Your task to perform on an android device: turn on the 24-hour format for clock Image 0: 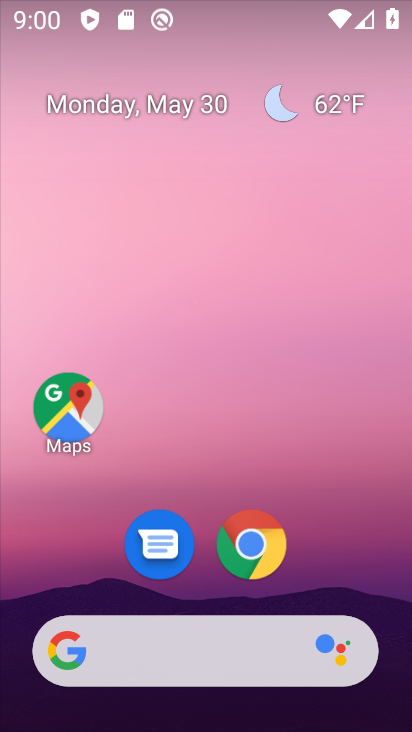
Step 0: drag from (346, 534) to (258, 96)
Your task to perform on an android device: turn on the 24-hour format for clock Image 1: 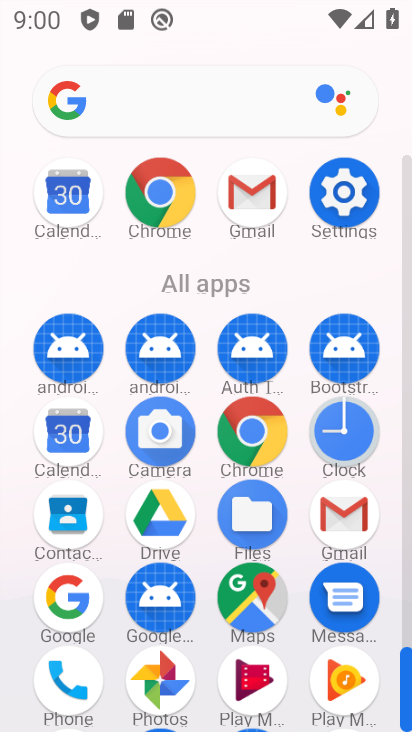
Step 1: click (346, 431)
Your task to perform on an android device: turn on the 24-hour format for clock Image 2: 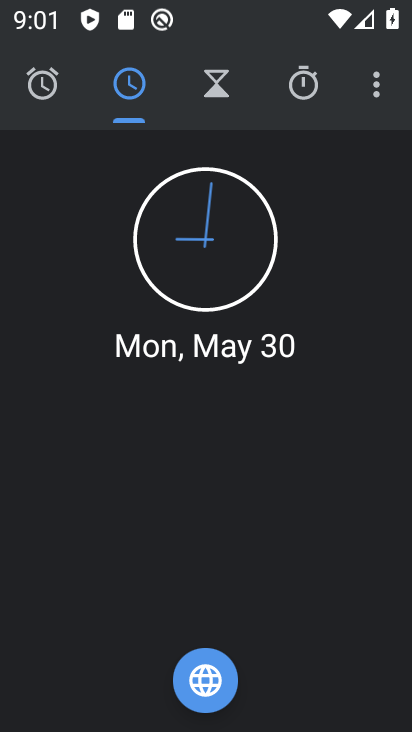
Step 2: click (379, 83)
Your task to perform on an android device: turn on the 24-hour format for clock Image 3: 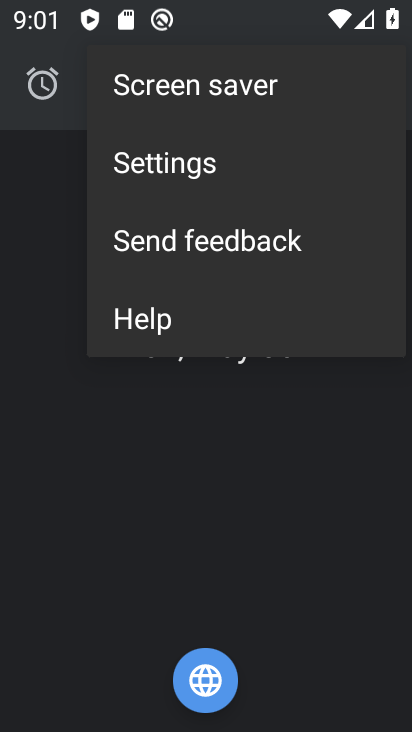
Step 3: click (188, 155)
Your task to perform on an android device: turn on the 24-hour format for clock Image 4: 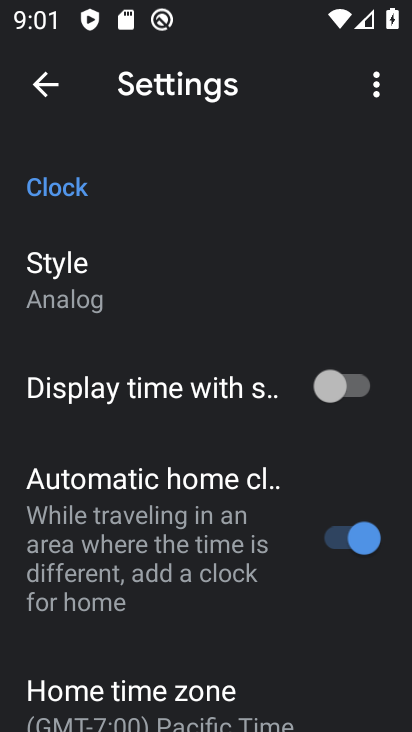
Step 4: drag from (155, 617) to (236, 343)
Your task to perform on an android device: turn on the 24-hour format for clock Image 5: 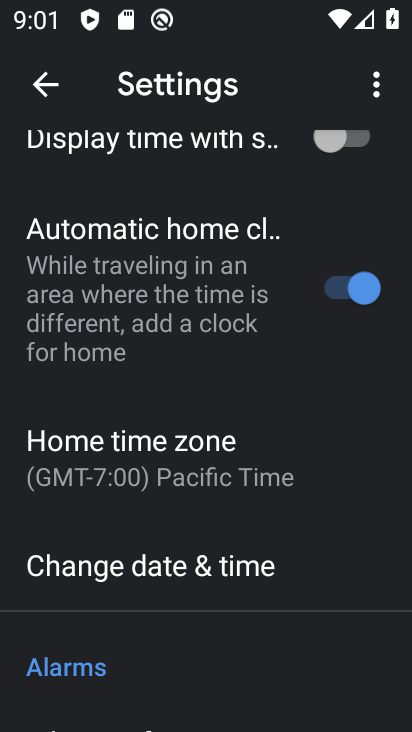
Step 5: click (162, 564)
Your task to perform on an android device: turn on the 24-hour format for clock Image 6: 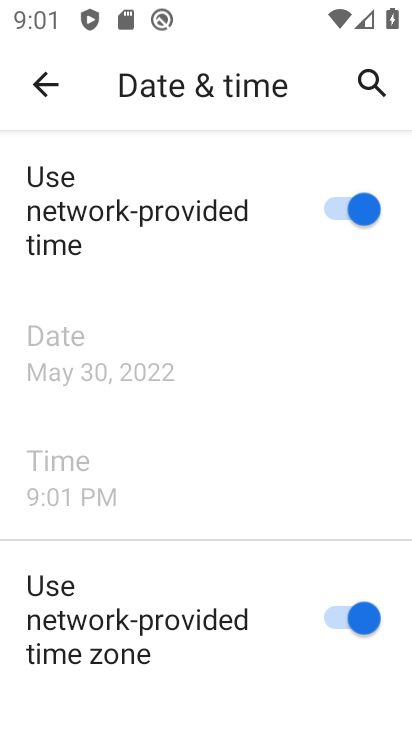
Step 6: drag from (139, 571) to (257, 355)
Your task to perform on an android device: turn on the 24-hour format for clock Image 7: 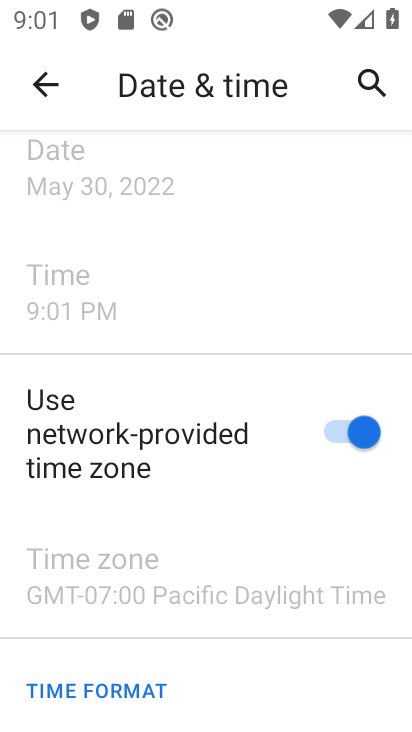
Step 7: drag from (174, 648) to (278, 316)
Your task to perform on an android device: turn on the 24-hour format for clock Image 8: 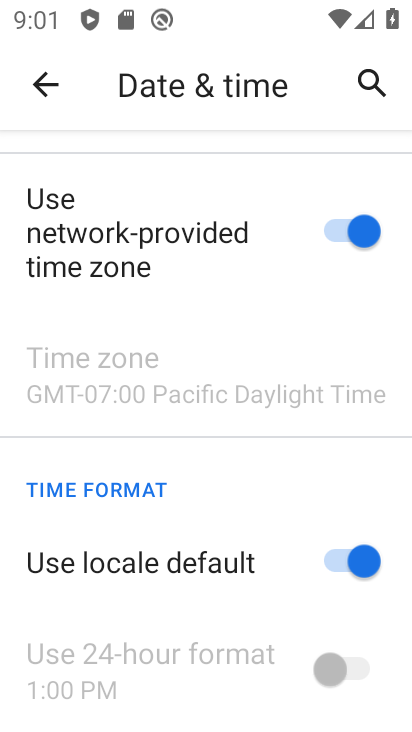
Step 8: click (340, 577)
Your task to perform on an android device: turn on the 24-hour format for clock Image 9: 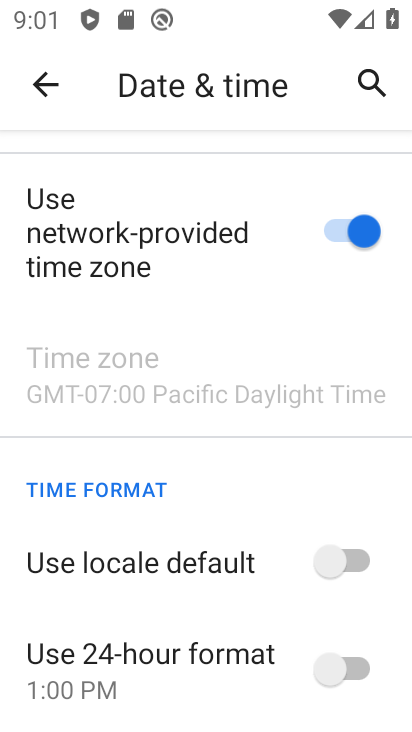
Step 9: click (352, 666)
Your task to perform on an android device: turn on the 24-hour format for clock Image 10: 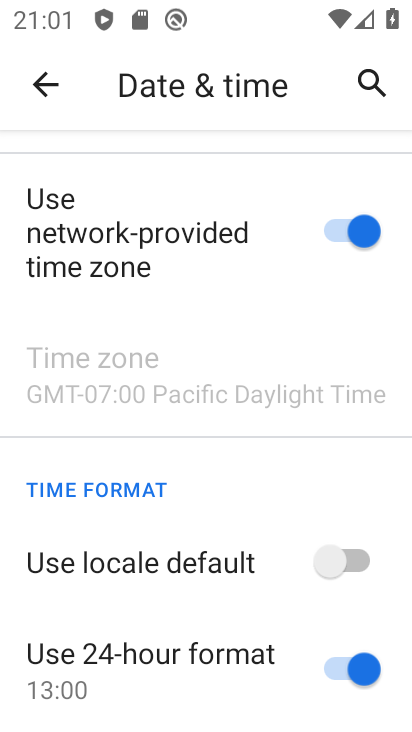
Step 10: task complete